Your task to perform on an android device: What's the weather? Image 0: 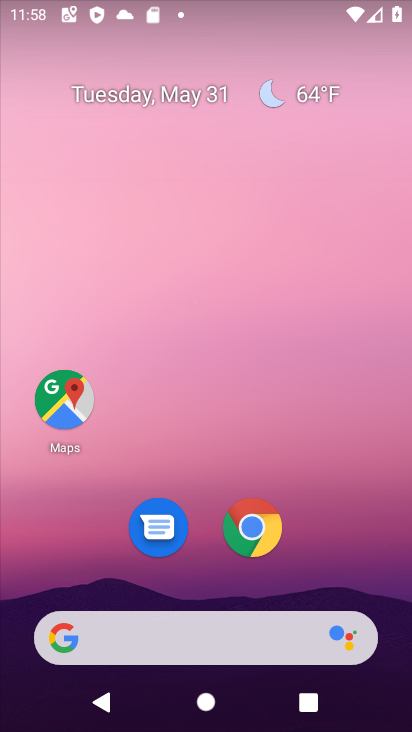
Step 0: click (264, 627)
Your task to perform on an android device: What's the weather? Image 1: 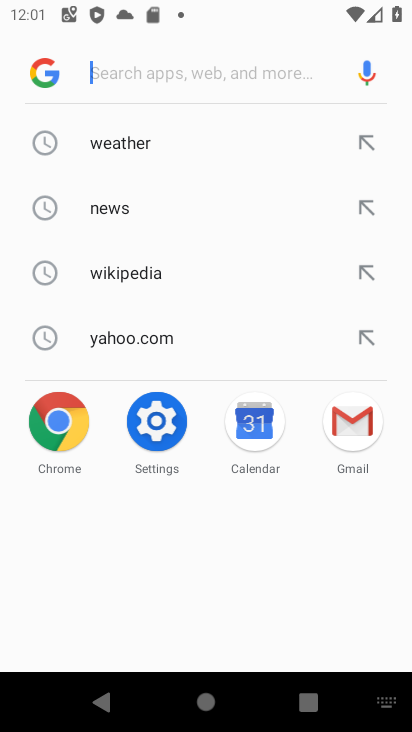
Step 1: click (168, 134)
Your task to perform on an android device: What's the weather? Image 2: 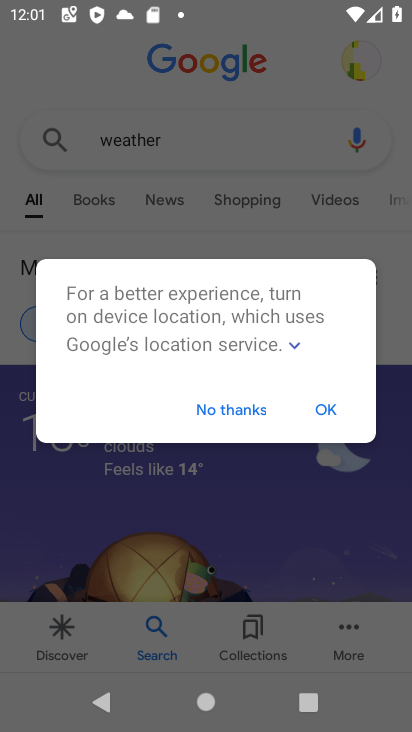
Step 2: click (228, 407)
Your task to perform on an android device: What's the weather? Image 3: 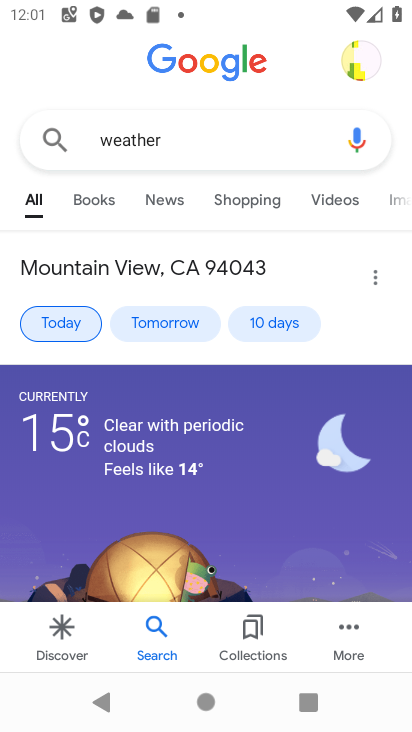
Step 3: task complete